Your task to perform on an android device: Play the new Ed Sheeran video on YouTube Image 0: 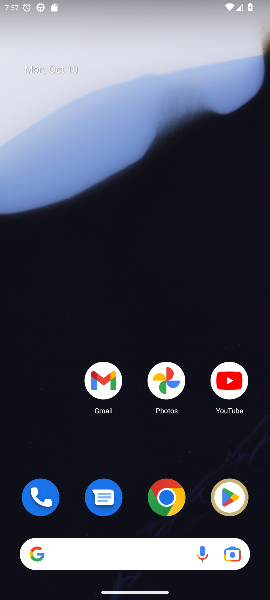
Step 0: drag from (112, 411) to (112, 156)
Your task to perform on an android device: Play the new Ed Sheeran video on YouTube Image 1: 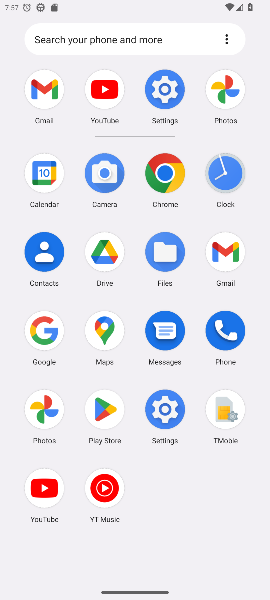
Step 1: click (95, 79)
Your task to perform on an android device: Play the new Ed Sheeran video on YouTube Image 2: 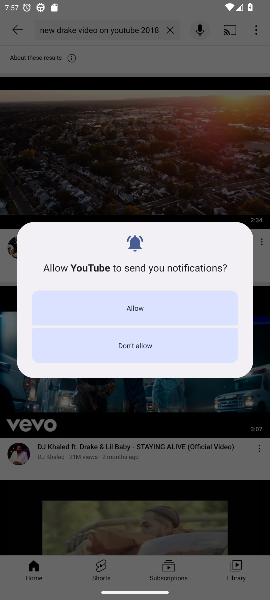
Step 2: click (157, 301)
Your task to perform on an android device: Play the new Ed Sheeran video on YouTube Image 3: 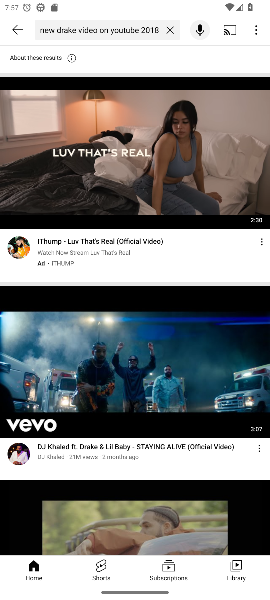
Step 3: click (168, 26)
Your task to perform on an android device: Play the new Ed Sheeran video on YouTube Image 4: 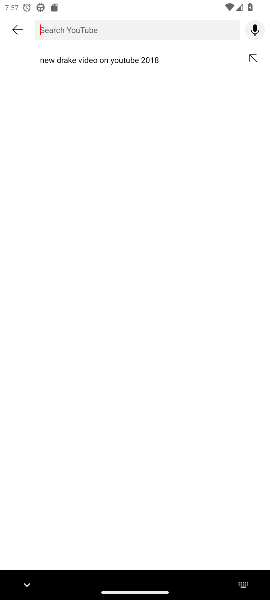
Step 4: click (126, 27)
Your task to perform on an android device: Play the new Ed Sheeran video on YouTube Image 5: 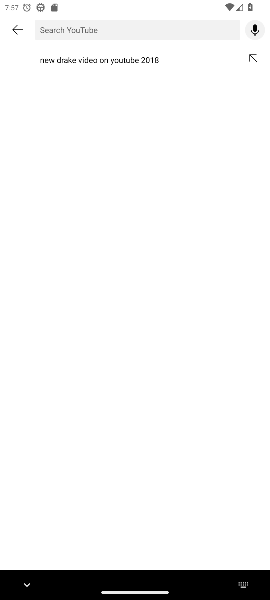
Step 5: click (106, 26)
Your task to perform on an android device: Play the new Ed Sheeran video on YouTube Image 6: 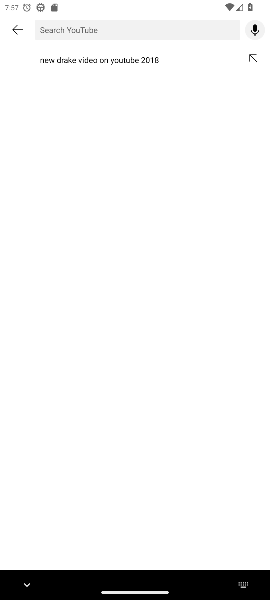
Step 6: type " new Ed Sheeran video "
Your task to perform on an android device: Play the new Ed Sheeran video on YouTube Image 7: 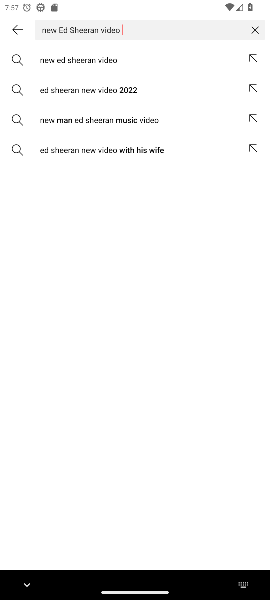
Step 7: click (80, 61)
Your task to perform on an android device: Play the new Ed Sheeran video on YouTube Image 8: 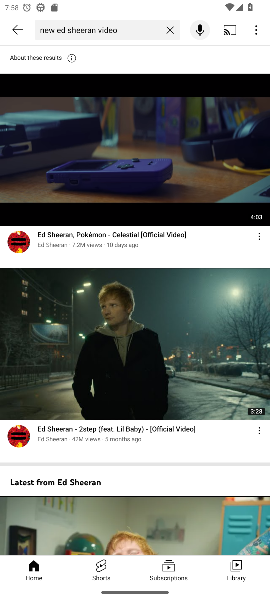
Step 8: task complete